Your task to perform on an android device: change the upload size in google photos Image 0: 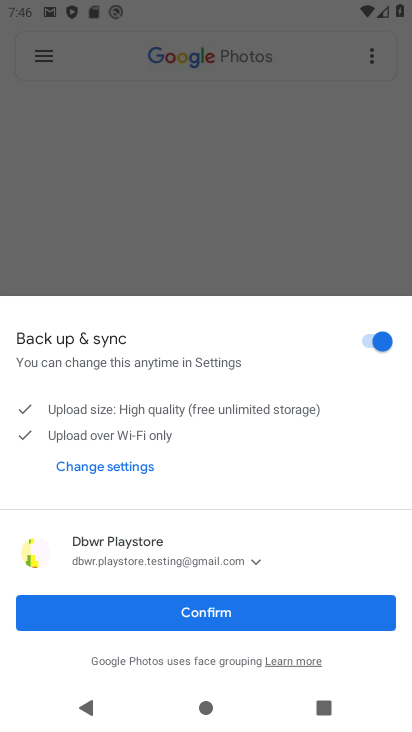
Step 0: click (154, 630)
Your task to perform on an android device: change the upload size in google photos Image 1: 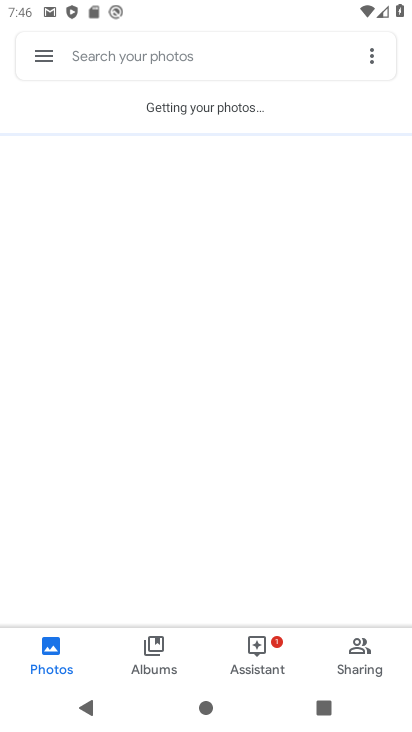
Step 1: click (39, 64)
Your task to perform on an android device: change the upload size in google photos Image 2: 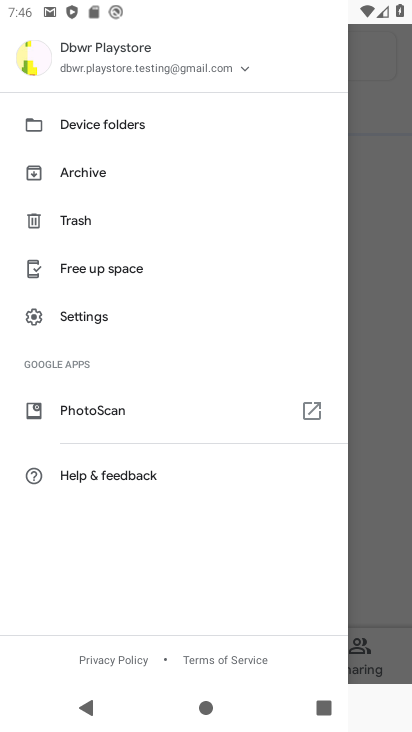
Step 2: click (125, 312)
Your task to perform on an android device: change the upload size in google photos Image 3: 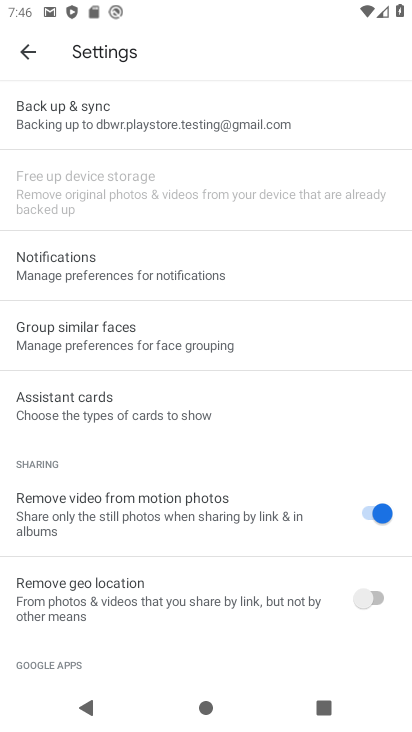
Step 3: click (149, 125)
Your task to perform on an android device: change the upload size in google photos Image 4: 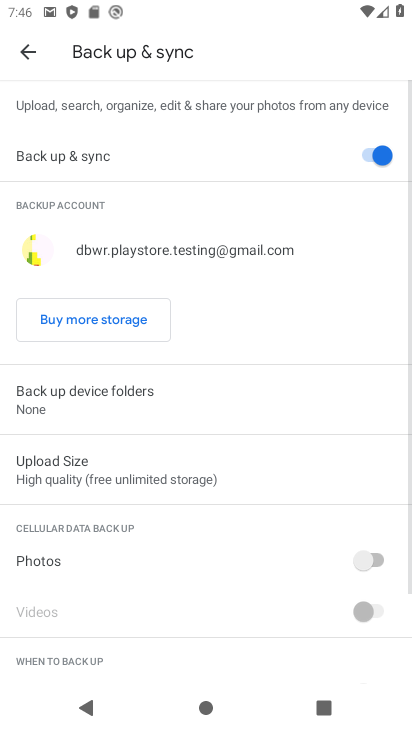
Step 4: click (144, 465)
Your task to perform on an android device: change the upload size in google photos Image 5: 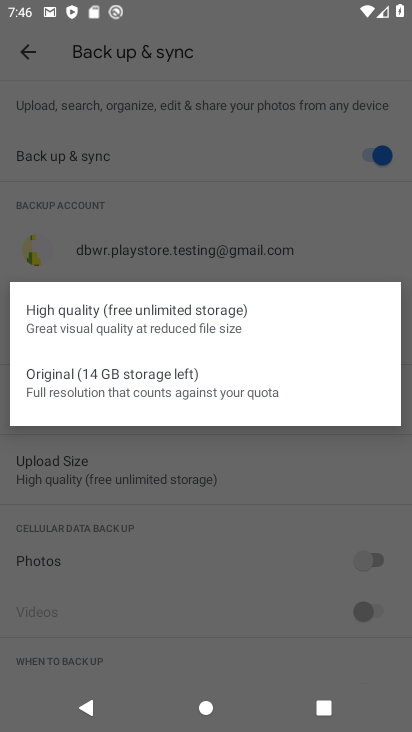
Step 5: click (134, 409)
Your task to perform on an android device: change the upload size in google photos Image 6: 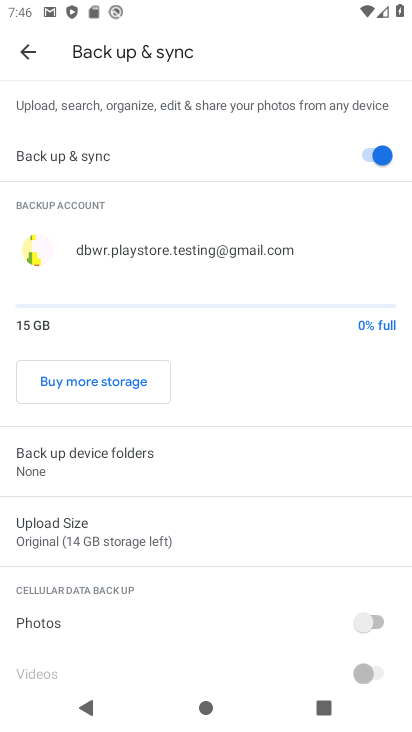
Step 6: task complete